Your task to perform on an android device: create a new album in the google photos Image 0: 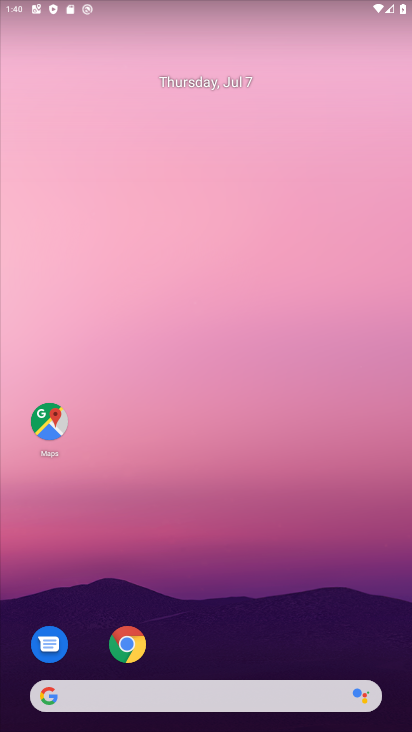
Step 0: drag from (171, 698) to (138, 150)
Your task to perform on an android device: create a new album in the google photos Image 1: 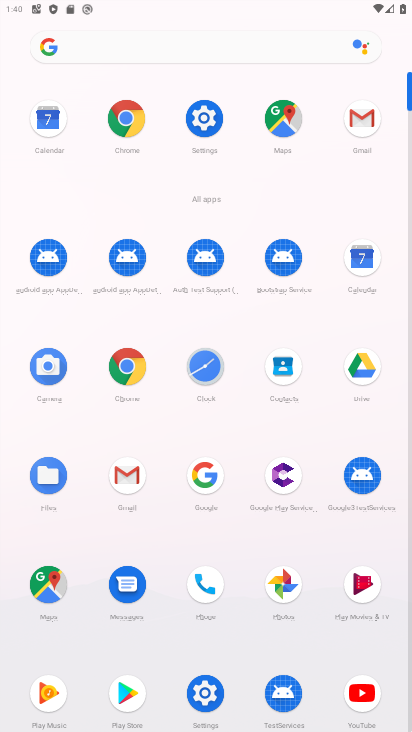
Step 1: click (282, 585)
Your task to perform on an android device: create a new album in the google photos Image 2: 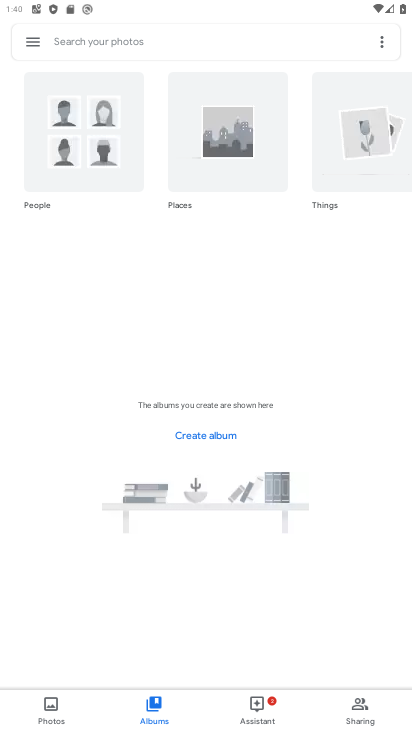
Step 2: click (263, 701)
Your task to perform on an android device: create a new album in the google photos Image 3: 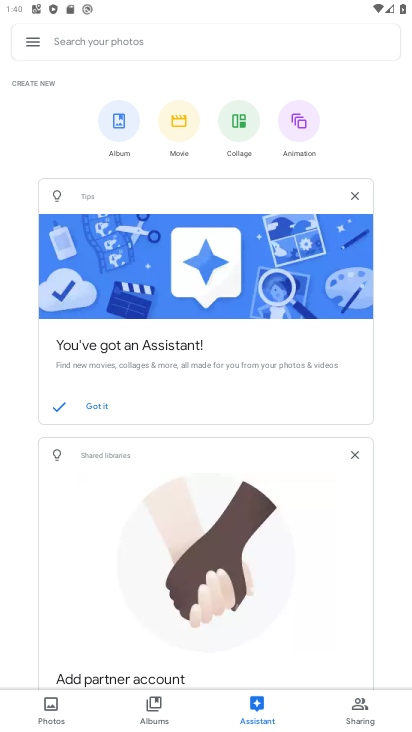
Step 3: click (124, 124)
Your task to perform on an android device: create a new album in the google photos Image 4: 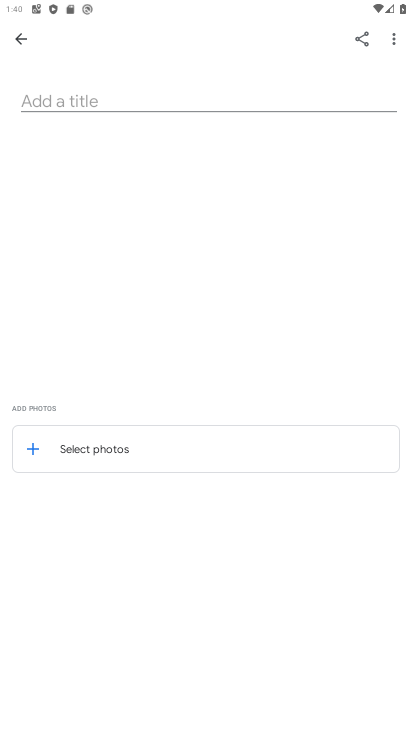
Step 4: click (183, 103)
Your task to perform on an android device: create a new album in the google photos Image 5: 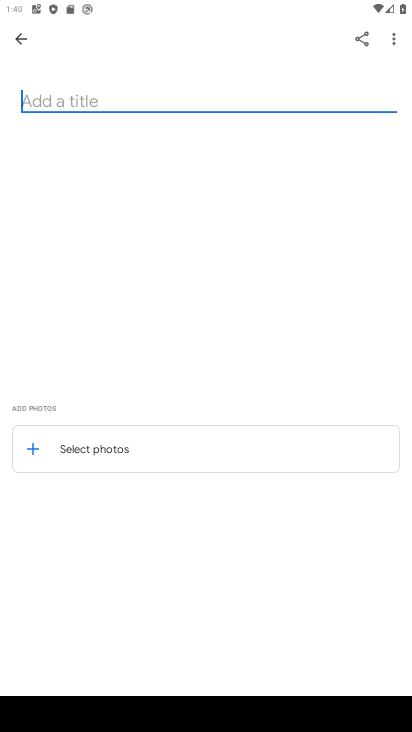
Step 5: type "ssaakask"
Your task to perform on an android device: create a new album in the google photos Image 6: 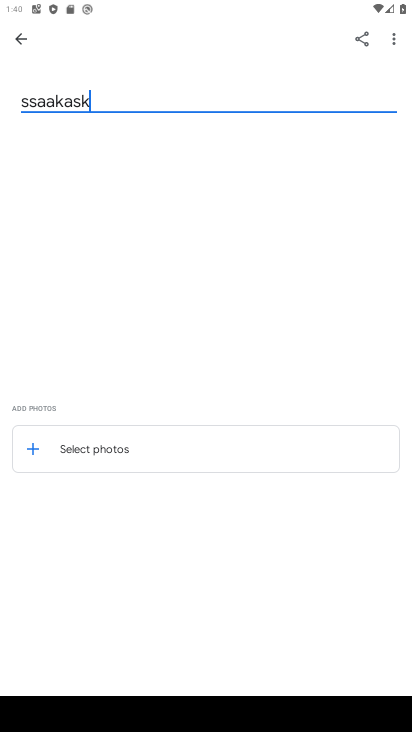
Step 6: click (208, 444)
Your task to perform on an android device: create a new album in the google photos Image 7: 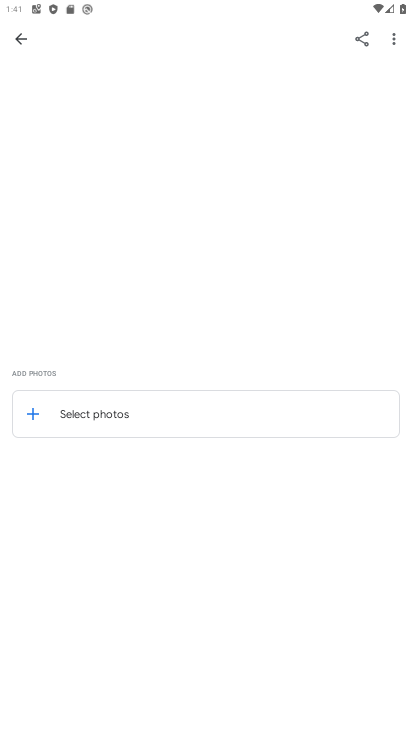
Step 7: click (176, 430)
Your task to perform on an android device: create a new album in the google photos Image 8: 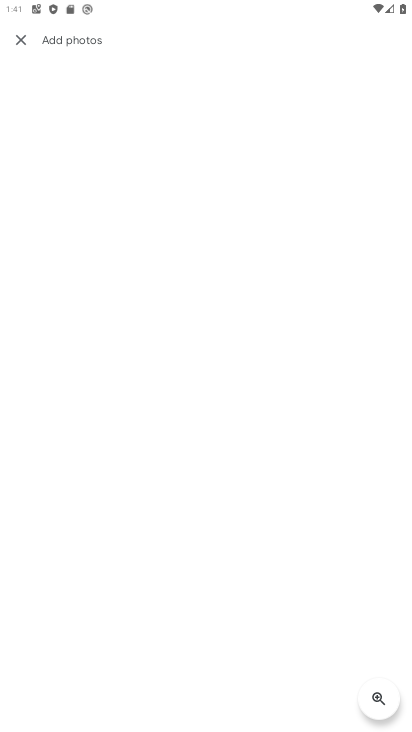
Step 8: click (377, 676)
Your task to perform on an android device: create a new album in the google photos Image 9: 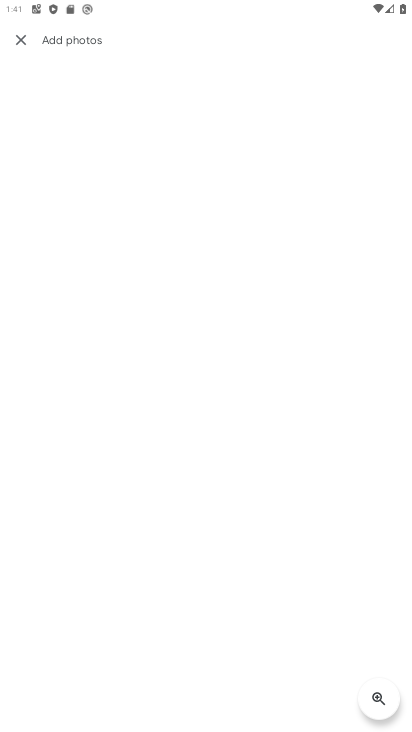
Step 9: click (378, 696)
Your task to perform on an android device: create a new album in the google photos Image 10: 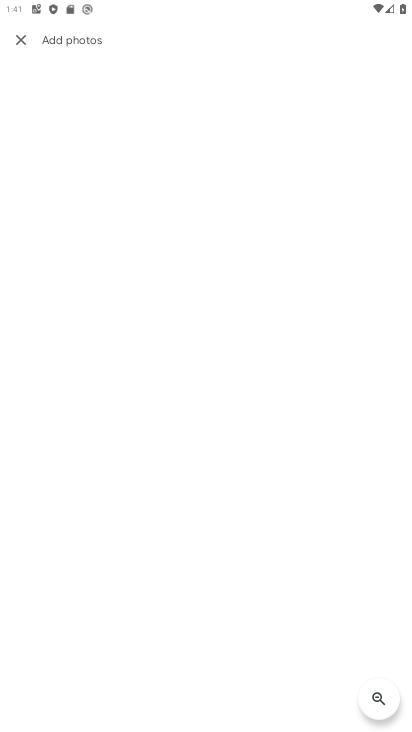
Step 10: task complete